Your task to perform on an android device: toggle location history Image 0: 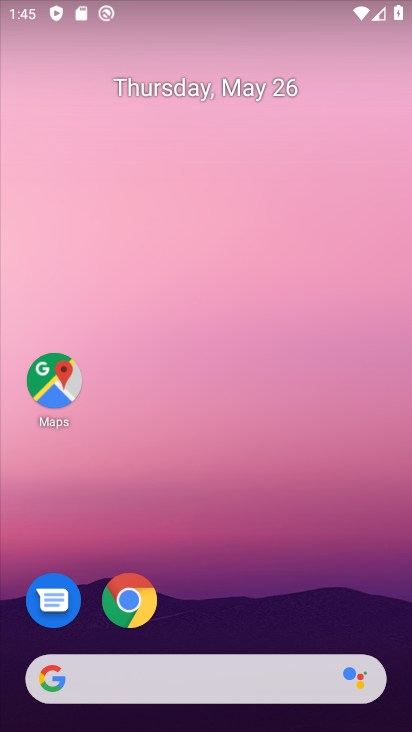
Step 0: drag from (229, 468) to (170, 29)
Your task to perform on an android device: toggle location history Image 1: 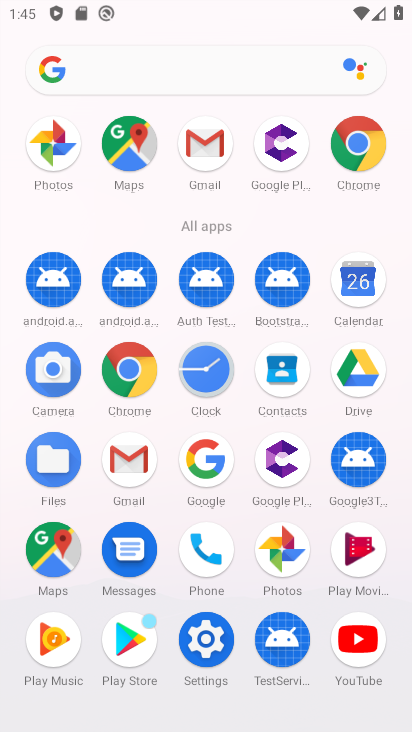
Step 1: click (208, 637)
Your task to perform on an android device: toggle location history Image 2: 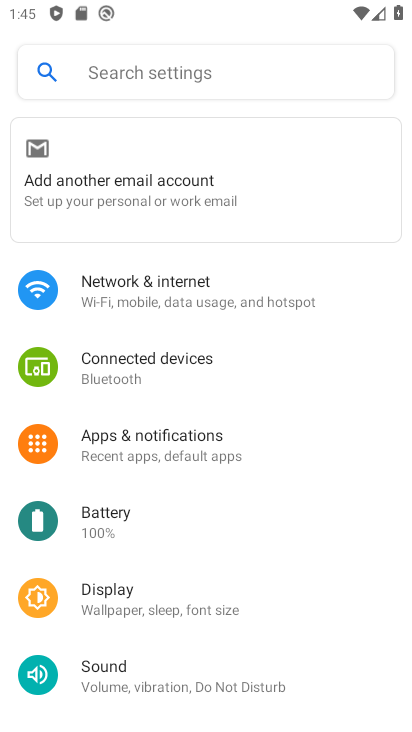
Step 2: drag from (218, 565) to (194, 239)
Your task to perform on an android device: toggle location history Image 3: 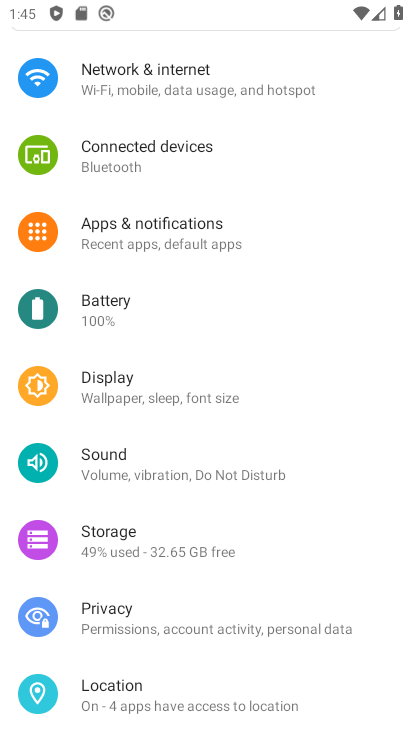
Step 3: click (186, 691)
Your task to perform on an android device: toggle location history Image 4: 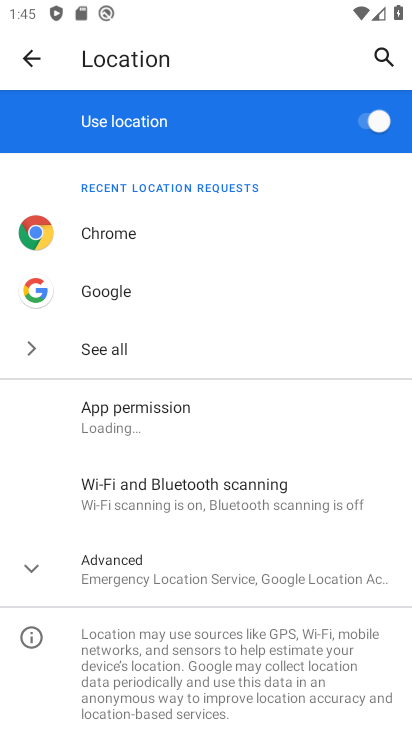
Step 4: click (23, 562)
Your task to perform on an android device: toggle location history Image 5: 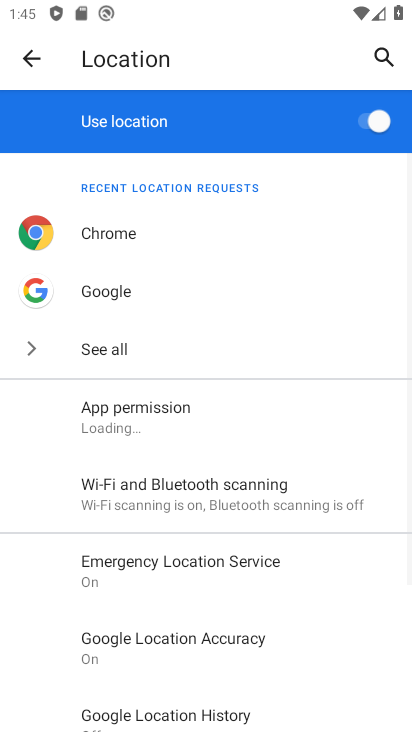
Step 5: drag from (300, 660) to (305, 274)
Your task to perform on an android device: toggle location history Image 6: 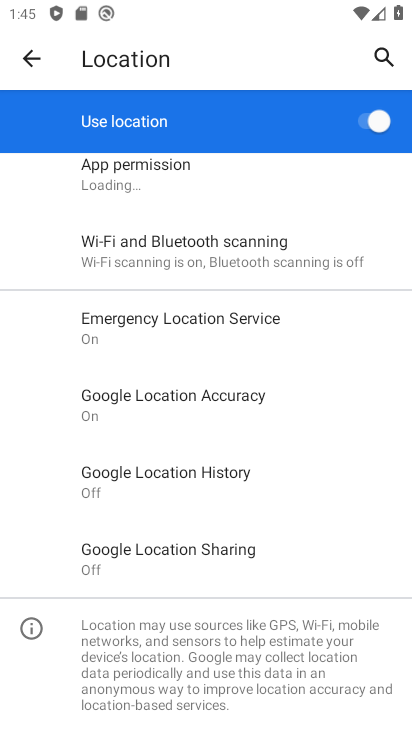
Step 6: click (228, 465)
Your task to perform on an android device: toggle location history Image 7: 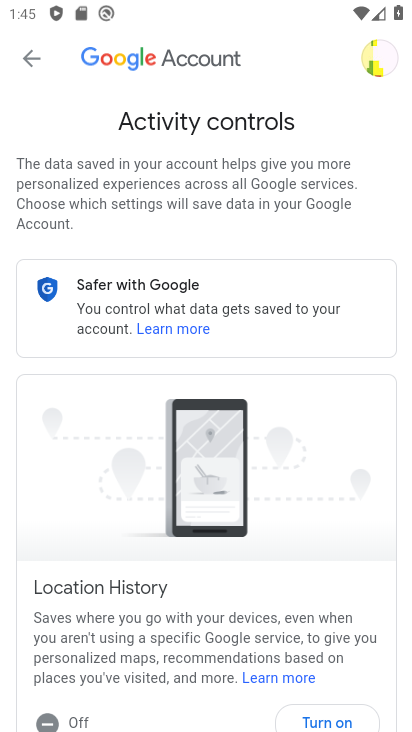
Step 7: task complete